Your task to perform on an android device: open the mobile data screen to see how much data has been used Image 0: 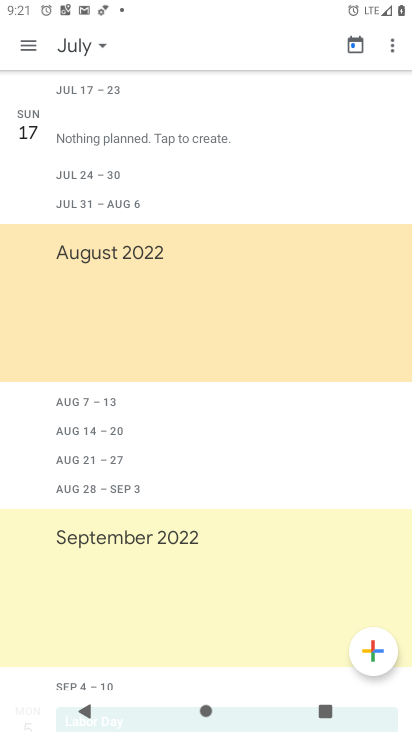
Step 0: press home button
Your task to perform on an android device: open the mobile data screen to see how much data has been used Image 1: 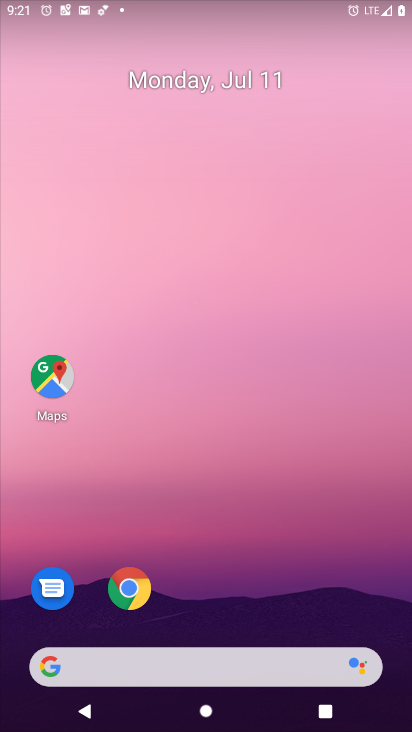
Step 1: drag from (210, 670) to (286, 239)
Your task to perform on an android device: open the mobile data screen to see how much data has been used Image 2: 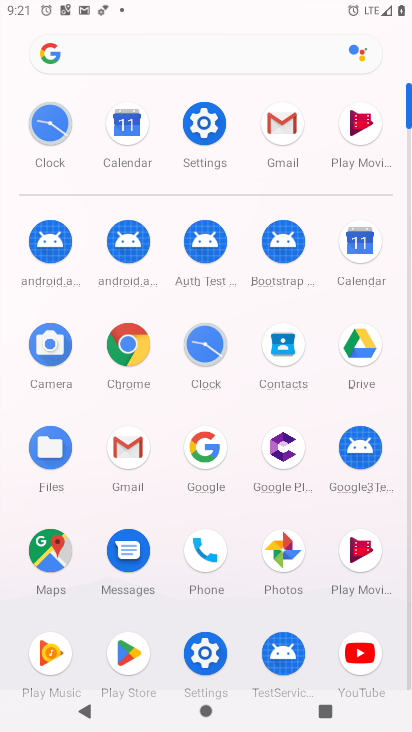
Step 2: click (204, 118)
Your task to perform on an android device: open the mobile data screen to see how much data has been used Image 3: 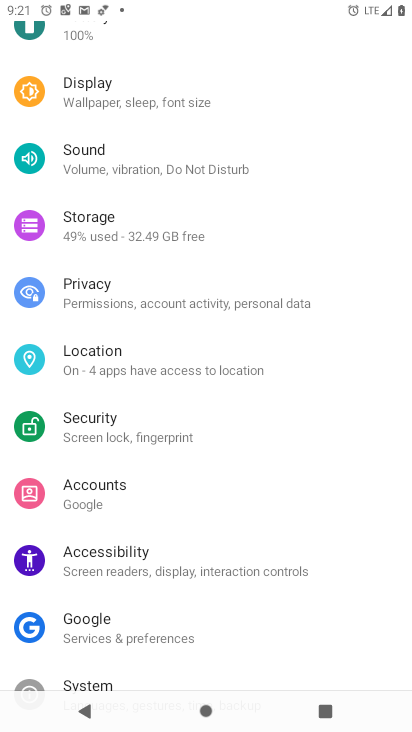
Step 3: drag from (300, 89) to (205, 515)
Your task to perform on an android device: open the mobile data screen to see how much data has been used Image 4: 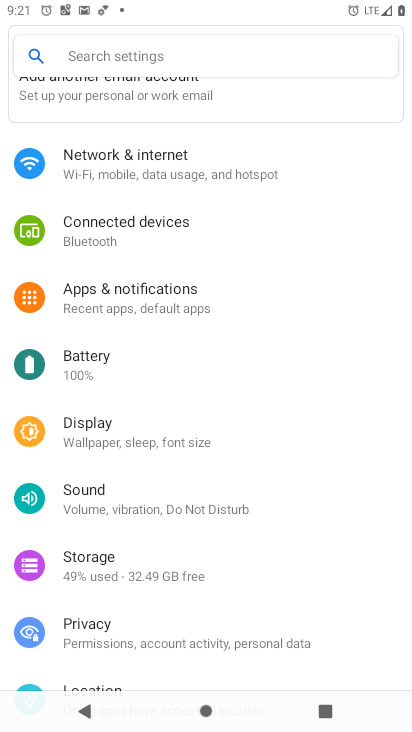
Step 4: click (144, 155)
Your task to perform on an android device: open the mobile data screen to see how much data has been used Image 5: 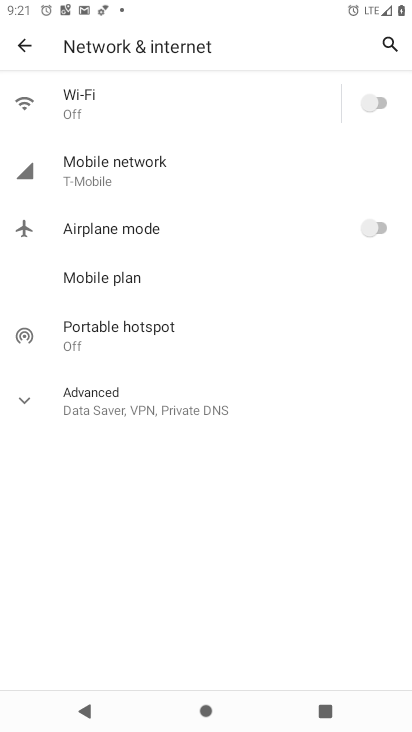
Step 5: click (143, 168)
Your task to perform on an android device: open the mobile data screen to see how much data has been used Image 6: 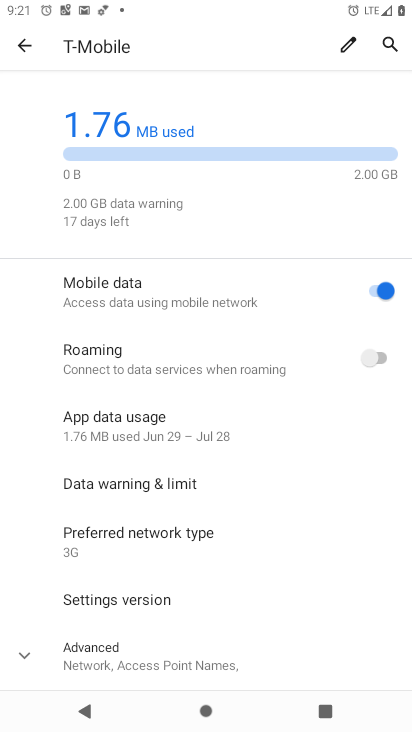
Step 6: task complete